Your task to perform on an android device: Open Android settings Image 0: 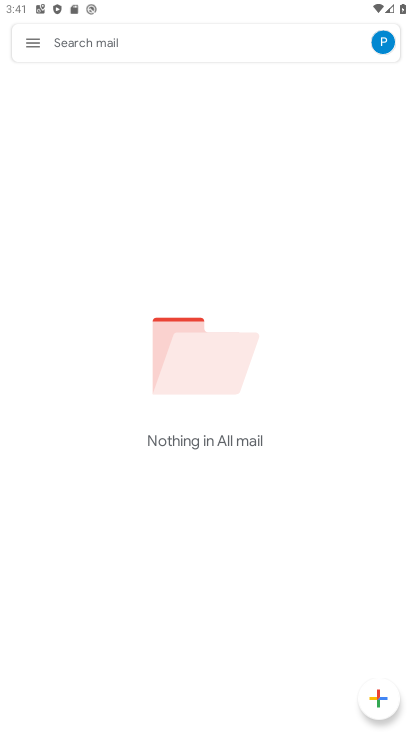
Step 0: press home button
Your task to perform on an android device: Open Android settings Image 1: 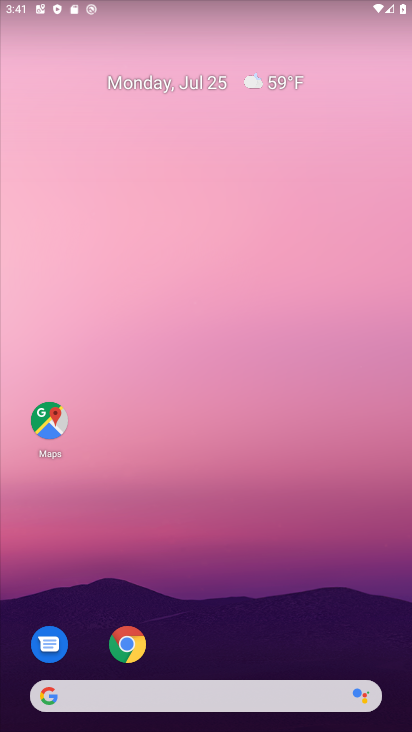
Step 1: drag from (251, 649) to (251, 209)
Your task to perform on an android device: Open Android settings Image 2: 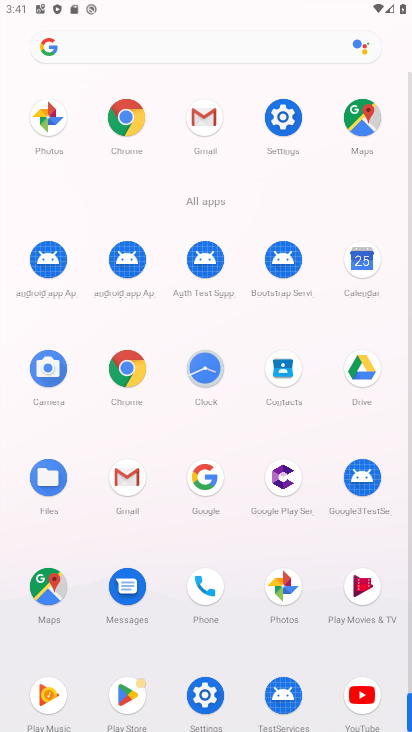
Step 2: click (277, 120)
Your task to perform on an android device: Open Android settings Image 3: 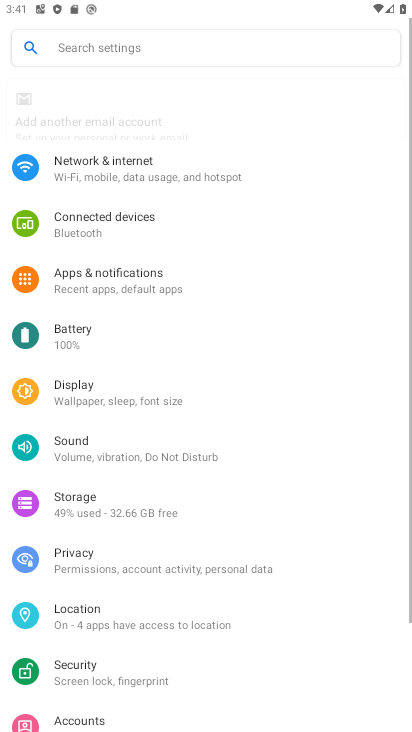
Step 3: task complete